Your task to perform on an android device: turn on wifi Image 0: 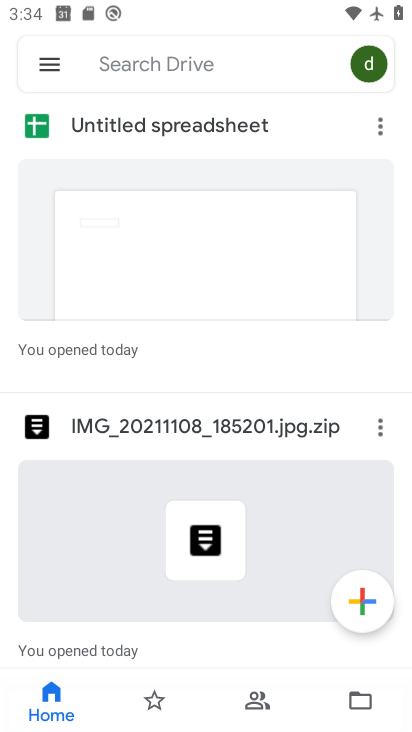
Step 0: press home button
Your task to perform on an android device: turn on wifi Image 1: 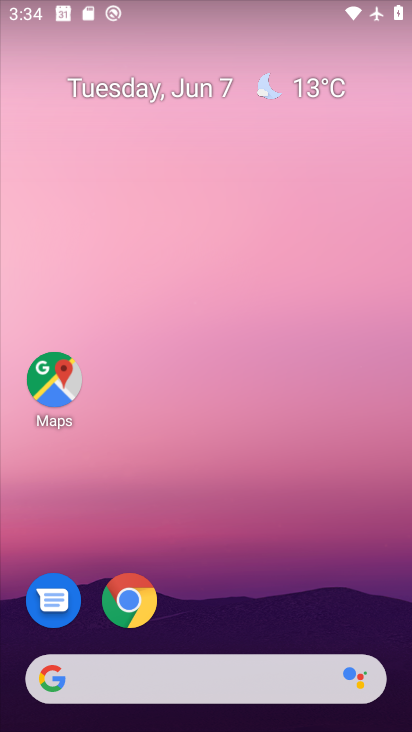
Step 1: drag from (305, 531) to (220, 184)
Your task to perform on an android device: turn on wifi Image 2: 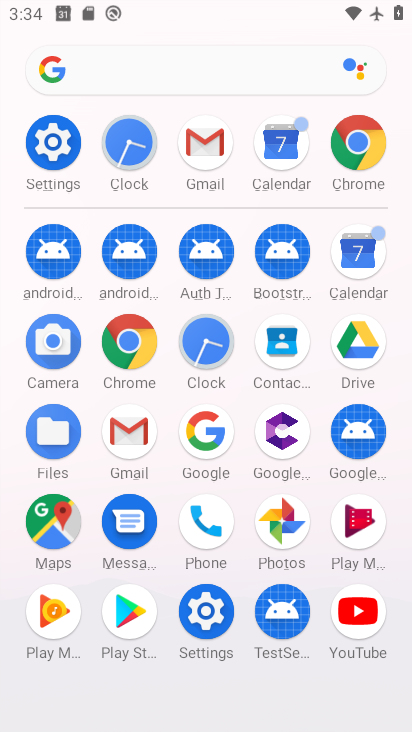
Step 2: click (57, 146)
Your task to perform on an android device: turn on wifi Image 3: 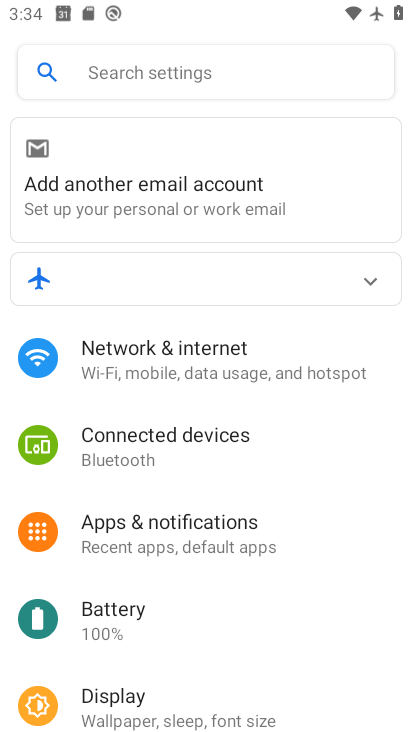
Step 3: click (200, 349)
Your task to perform on an android device: turn on wifi Image 4: 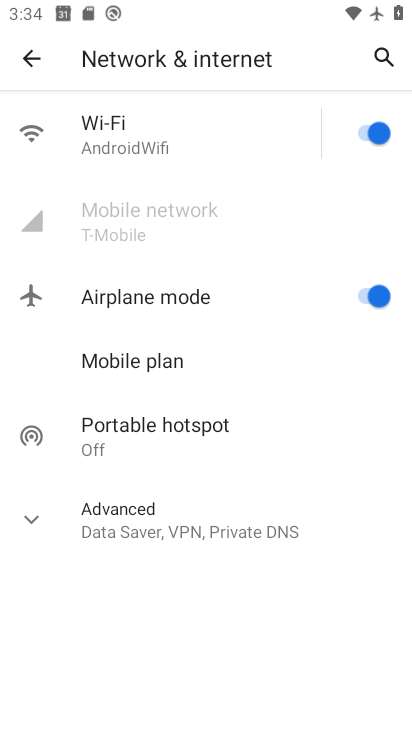
Step 4: click (256, 126)
Your task to perform on an android device: turn on wifi Image 5: 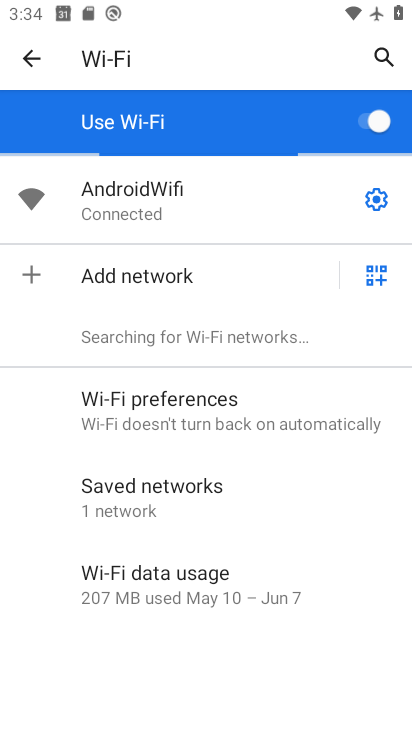
Step 5: task complete